Your task to perform on an android device: turn vacation reply on in the gmail app Image 0: 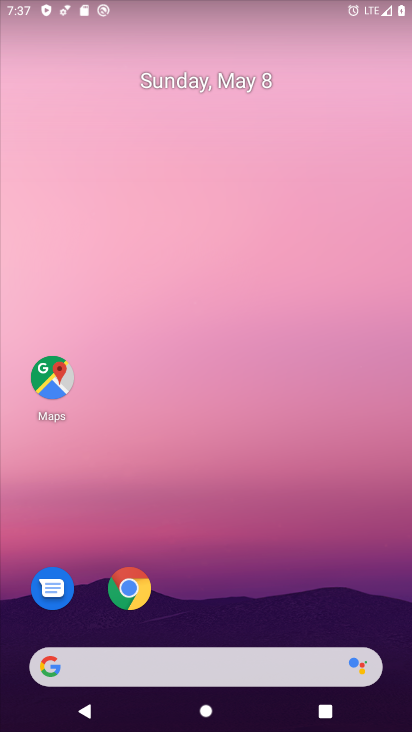
Step 0: press home button
Your task to perform on an android device: turn vacation reply on in the gmail app Image 1: 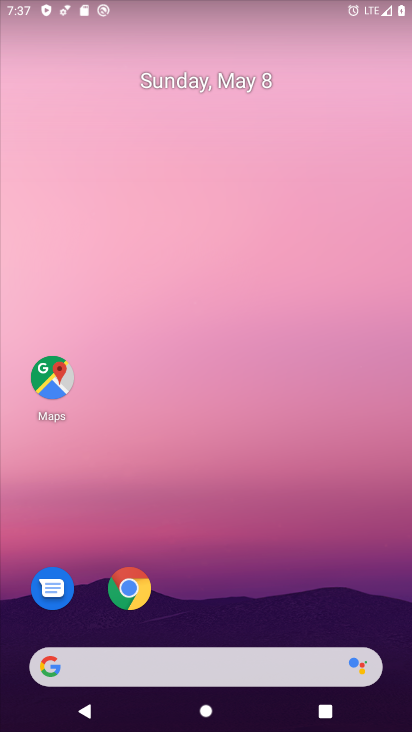
Step 1: drag from (149, 670) to (362, 111)
Your task to perform on an android device: turn vacation reply on in the gmail app Image 2: 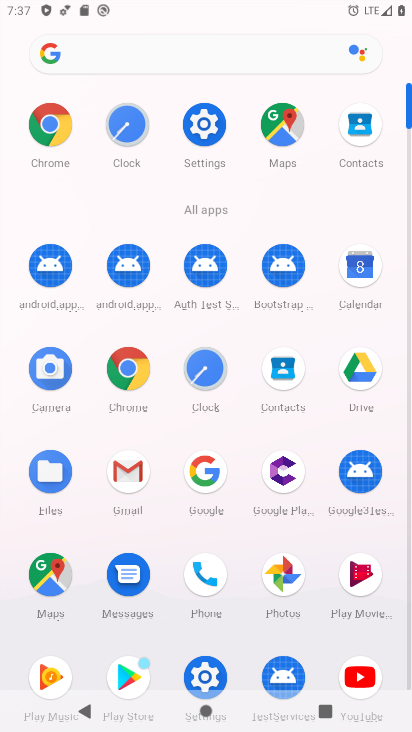
Step 2: click (133, 476)
Your task to perform on an android device: turn vacation reply on in the gmail app Image 3: 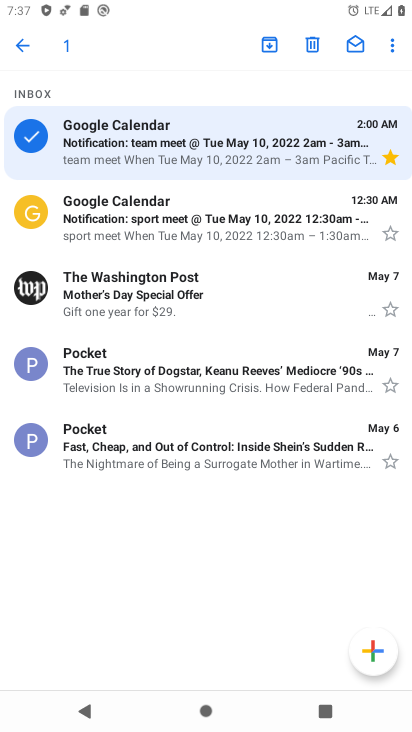
Step 3: click (25, 46)
Your task to perform on an android device: turn vacation reply on in the gmail app Image 4: 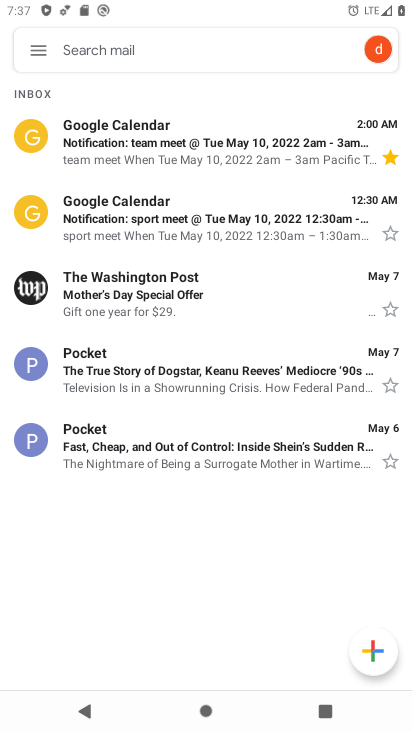
Step 4: click (25, 46)
Your task to perform on an android device: turn vacation reply on in the gmail app Image 5: 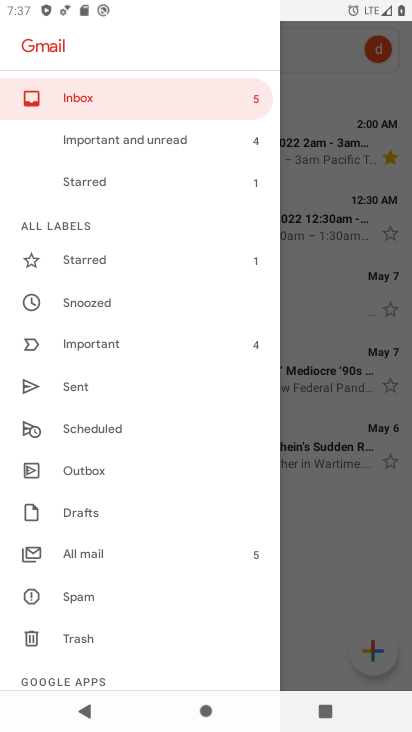
Step 5: drag from (192, 435) to (286, 172)
Your task to perform on an android device: turn vacation reply on in the gmail app Image 6: 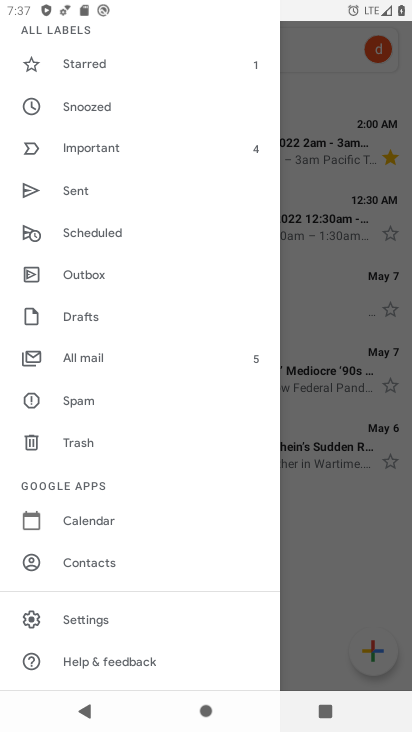
Step 6: click (84, 625)
Your task to perform on an android device: turn vacation reply on in the gmail app Image 7: 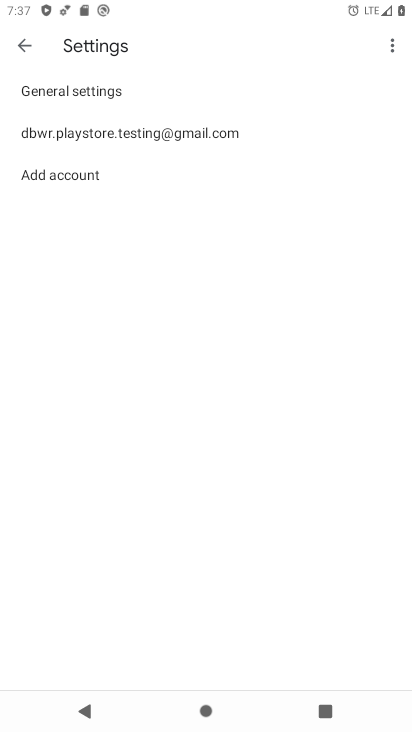
Step 7: click (178, 133)
Your task to perform on an android device: turn vacation reply on in the gmail app Image 8: 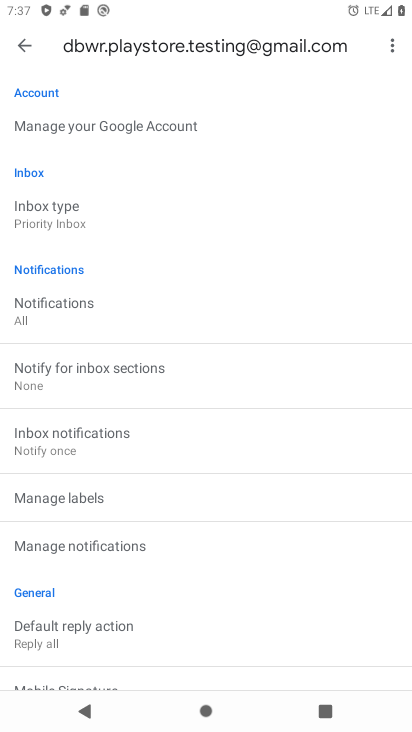
Step 8: drag from (183, 603) to (354, 51)
Your task to perform on an android device: turn vacation reply on in the gmail app Image 9: 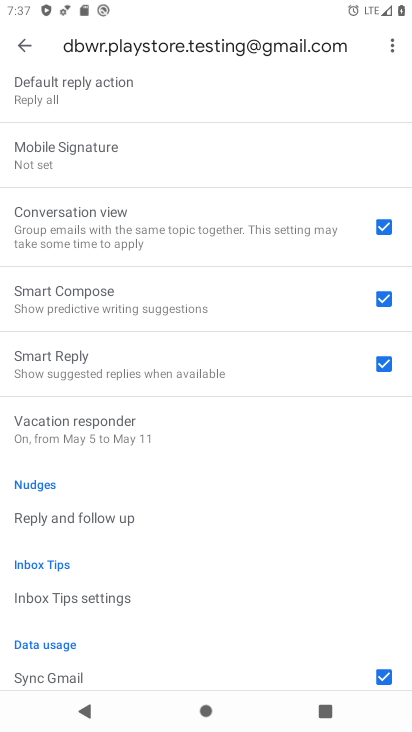
Step 9: click (106, 429)
Your task to perform on an android device: turn vacation reply on in the gmail app Image 10: 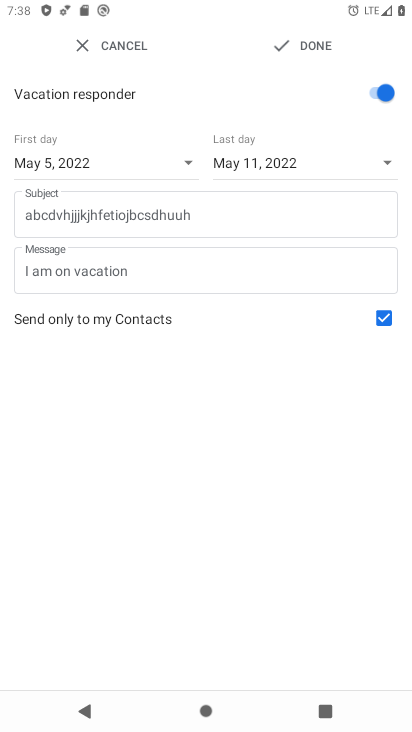
Step 10: task complete